Your task to perform on an android device: change the clock display to show seconds Image 0: 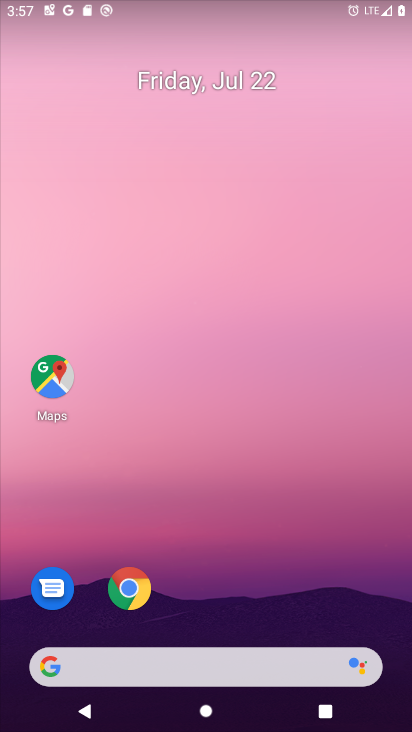
Step 0: drag from (242, 536) to (272, 112)
Your task to perform on an android device: change the clock display to show seconds Image 1: 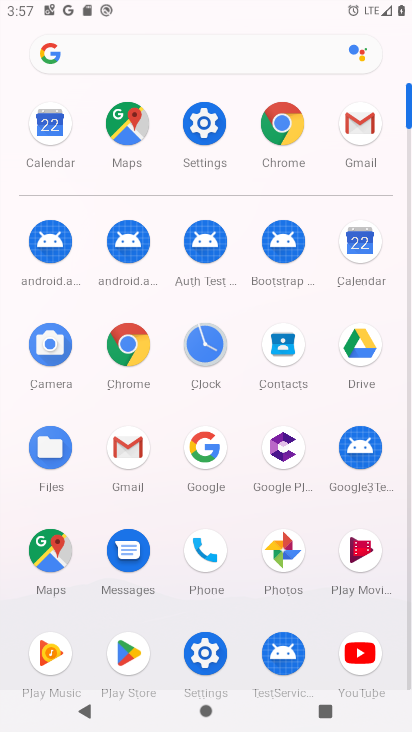
Step 1: click (208, 653)
Your task to perform on an android device: change the clock display to show seconds Image 2: 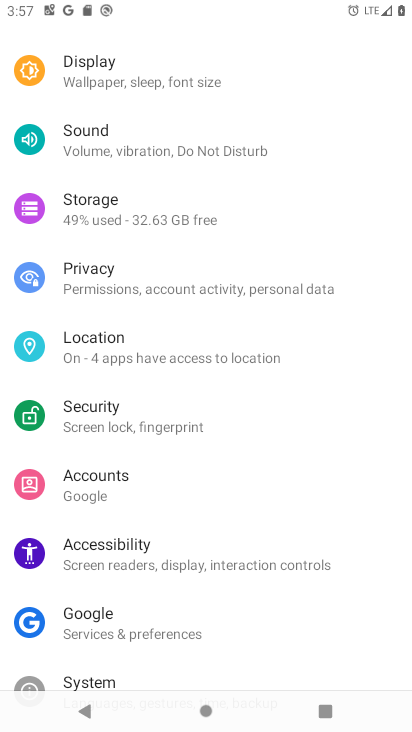
Step 2: click (90, 63)
Your task to perform on an android device: change the clock display to show seconds Image 3: 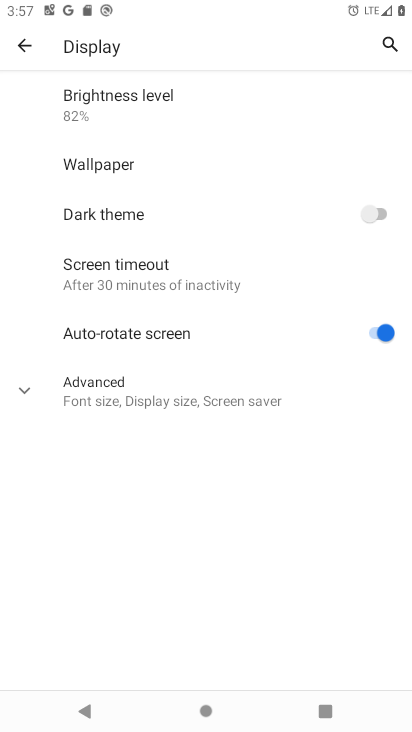
Step 3: click (17, 54)
Your task to perform on an android device: change the clock display to show seconds Image 4: 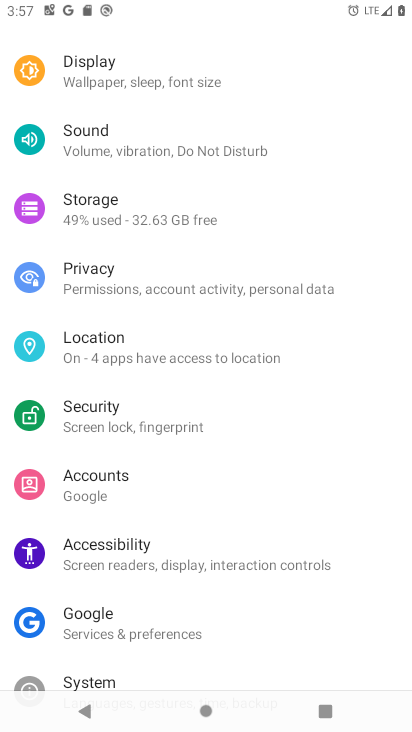
Step 4: press home button
Your task to perform on an android device: change the clock display to show seconds Image 5: 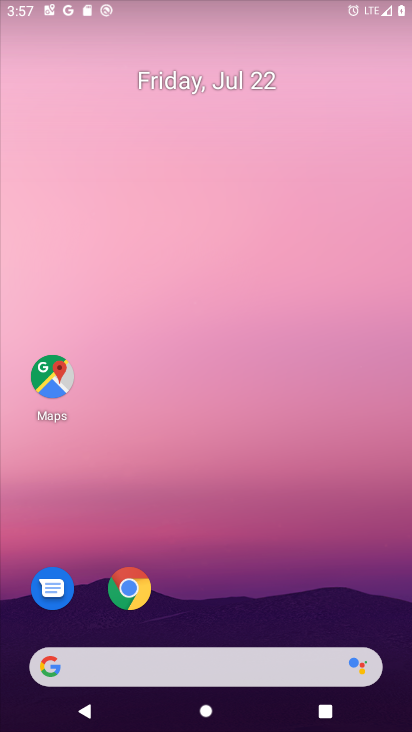
Step 5: drag from (312, 589) to (364, 152)
Your task to perform on an android device: change the clock display to show seconds Image 6: 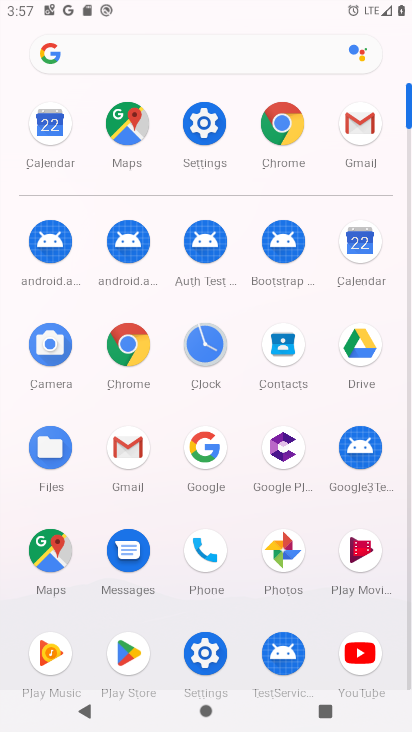
Step 6: click (213, 346)
Your task to perform on an android device: change the clock display to show seconds Image 7: 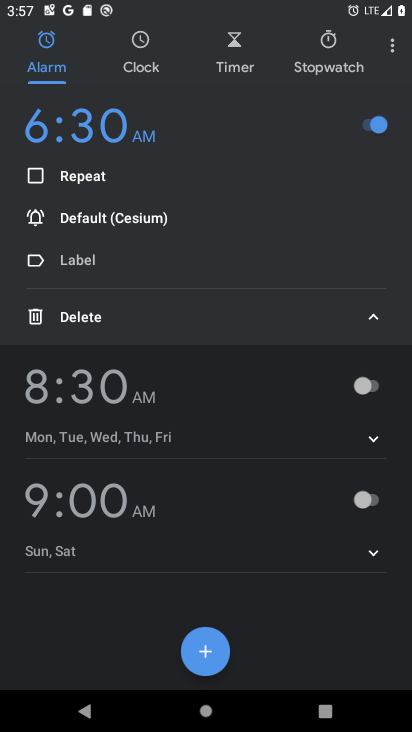
Step 7: drag from (390, 32) to (378, 68)
Your task to perform on an android device: change the clock display to show seconds Image 8: 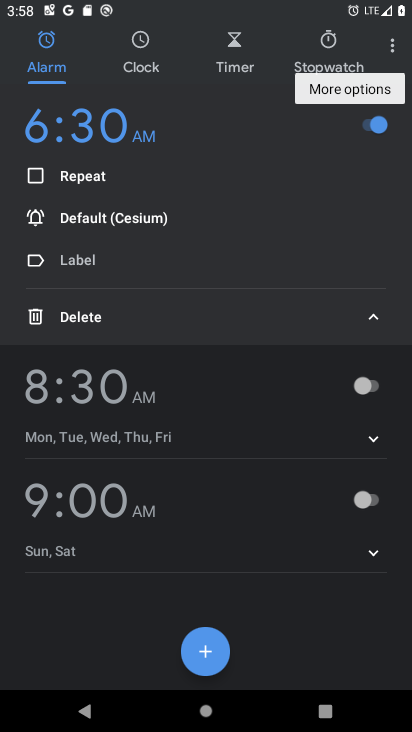
Step 8: click (388, 54)
Your task to perform on an android device: change the clock display to show seconds Image 9: 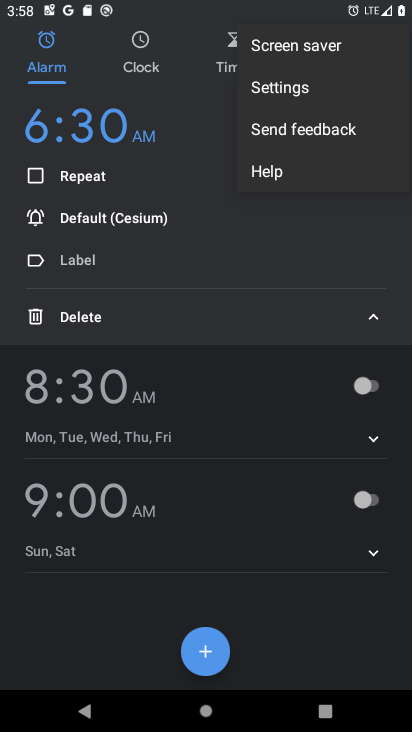
Step 9: click (303, 86)
Your task to perform on an android device: change the clock display to show seconds Image 10: 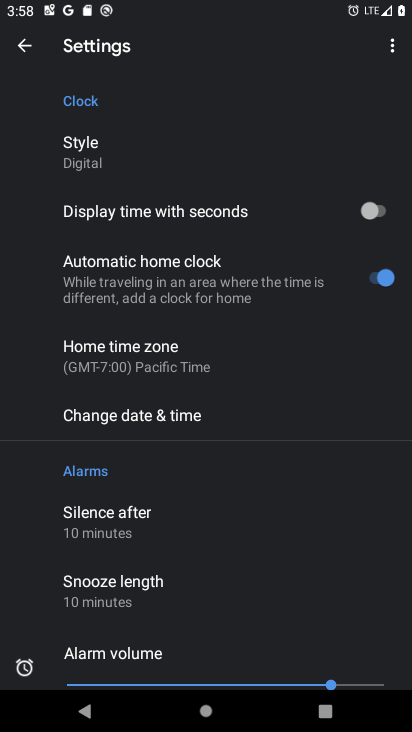
Step 10: click (264, 208)
Your task to perform on an android device: change the clock display to show seconds Image 11: 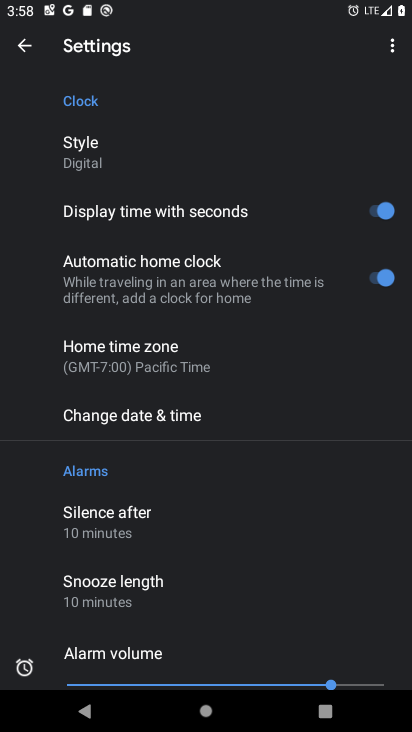
Step 11: task complete